Your task to perform on an android device: change text size in settings app Image 0: 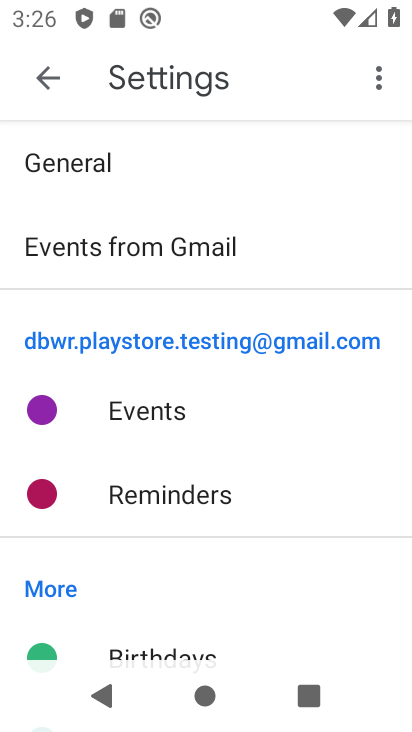
Step 0: press back button
Your task to perform on an android device: change text size in settings app Image 1: 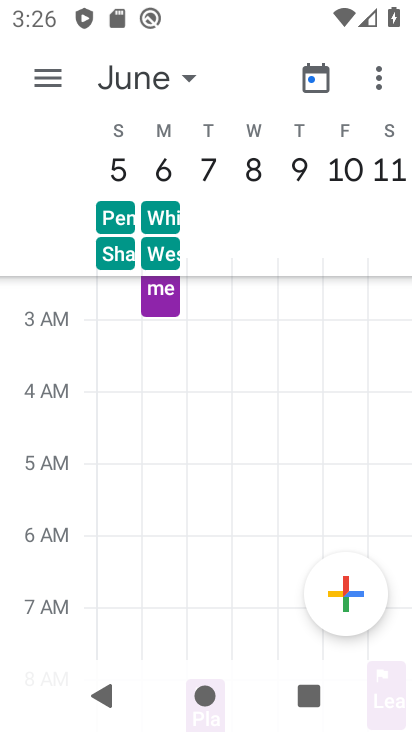
Step 1: press back button
Your task to perform on an android device: change text size in settings app Image 2: 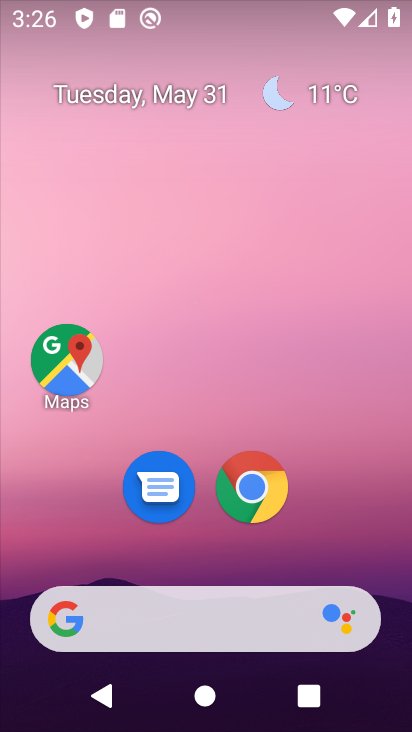
Step 2: drag from (294, 542) to (258, 49)
Your task to perform on an android device: change text size in settings app Image 3: 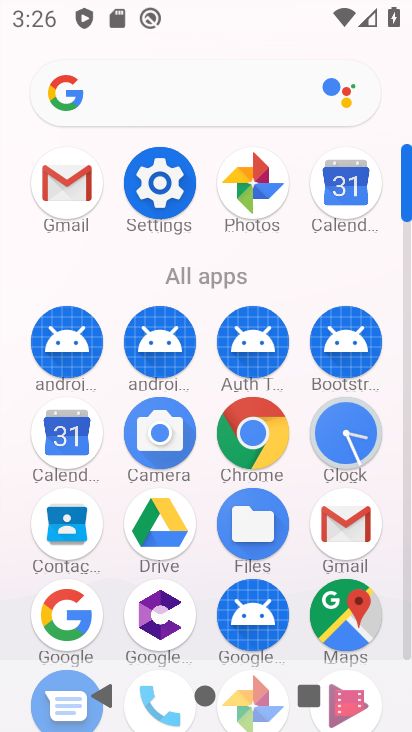
Step 3: click (160, 181)
Your task to perform on an android device: change text size in settings app Image 4: 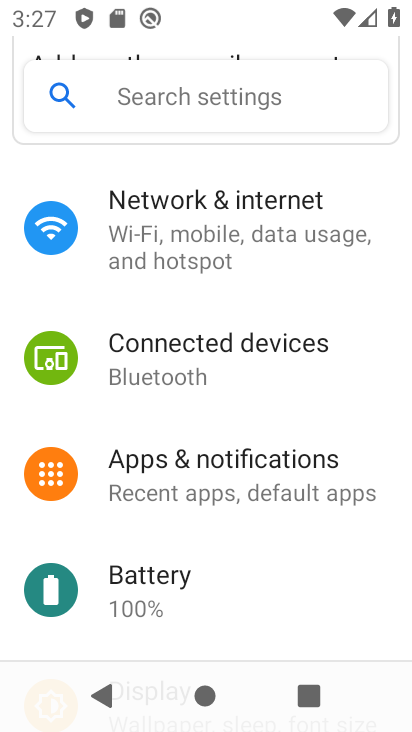
Step 4: drag from (201, 499) to (222, 420)
Your task to perform on an android device: change text size in settings app Image 5: 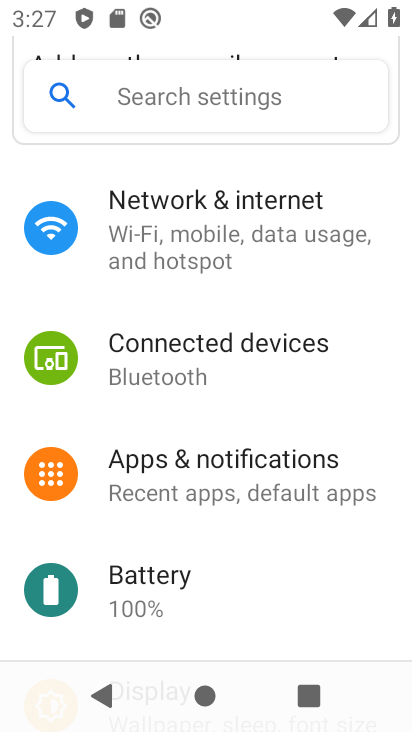
Step 5: drag from (238, 568) to (270, 417)
Your task to perform on an android device: change text size in settings app Image 6: 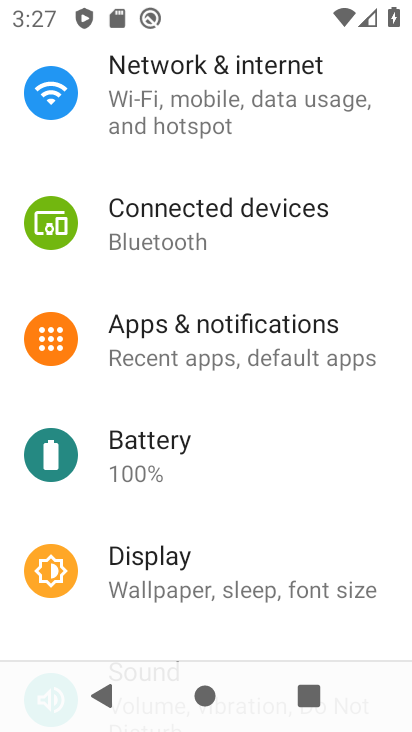
Step 6: drag from (172, 521) to (249, 396)
Your task to perform on an android device: change text size in settings app Image 7: 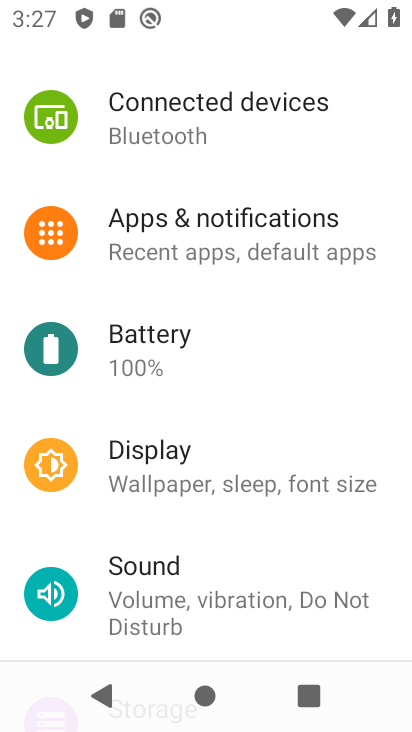
Step 7: drag from (160, 516) to (273, 390)
Your task to perform on an android device: change text size in settings app Image 8: 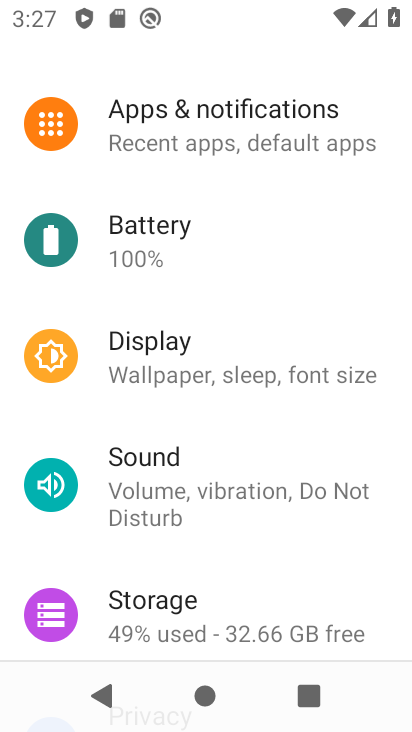
Step 8: drag from (129, 544) to (242, 422)
Your task to perform on an android device: change text size in settings app Image 9: 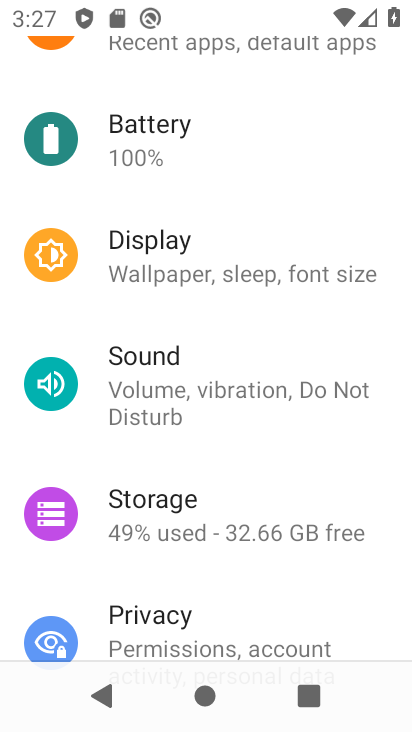
Step 9: drag from (132, 469) to (238, 336)
Your task to perform on an android device: change text size in settings app Image 10: 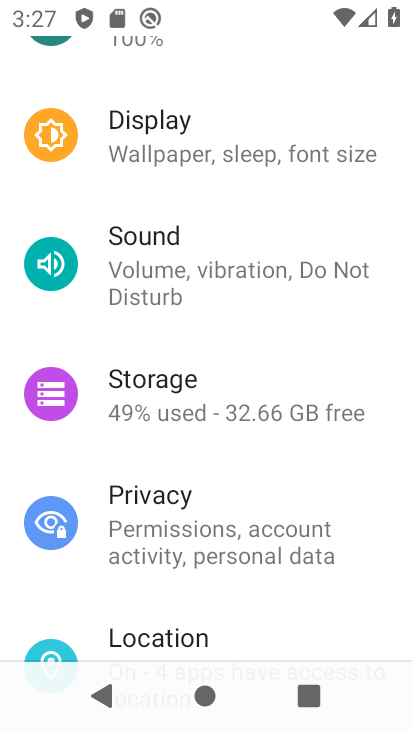
Step 10: drag from (77, 461) to (191, 323)
Your task to perform on an android device: change text size in settings app Image 11: 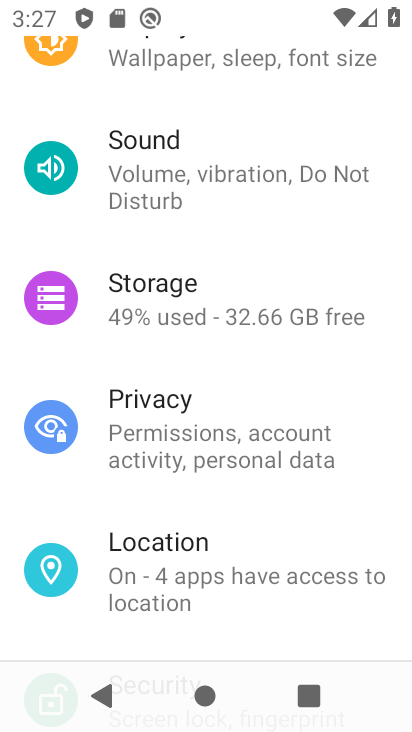
Step 11: drag from (108, 485) to (213, 335)
Your task to perform on an android device: change text size in settings app Image 12: 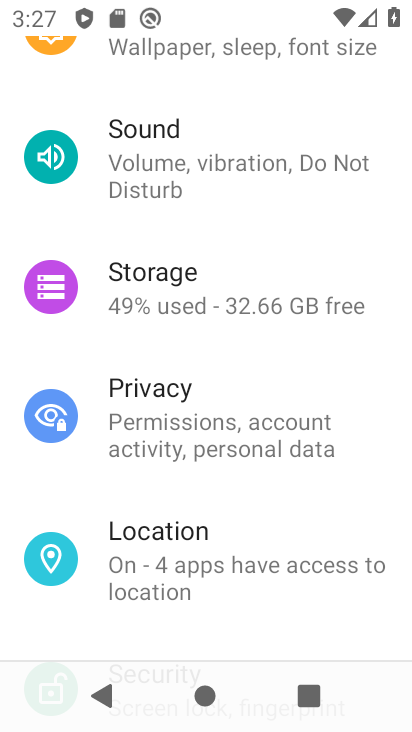
Step 12: drag from (68, 490) to (210, 340)
Your task to perform on an android device: change text size in settings app Image 13: 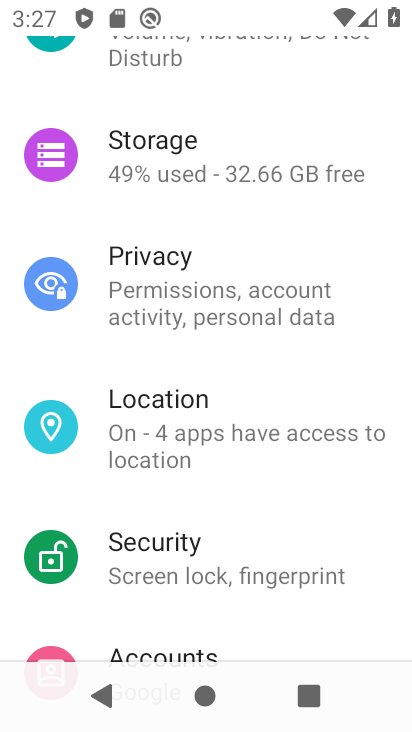
Step 13: drag from (87, 497) to (227, 327)
Your task to perform on an android device: change text size in settings app Image 14: 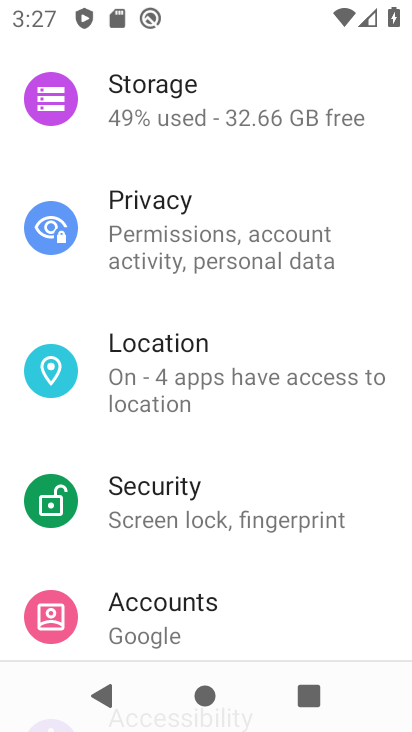
Step 14: drag from (48, 561) to (242, 0)
Your task to perform on an android device: change text size in settings app Image 15: 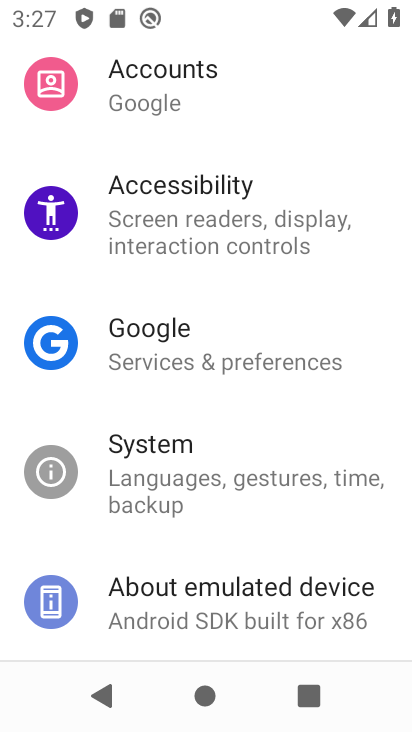
Step 15: click (185, 248)
Your task to perform on an android device: change text size in settings app Image 16: 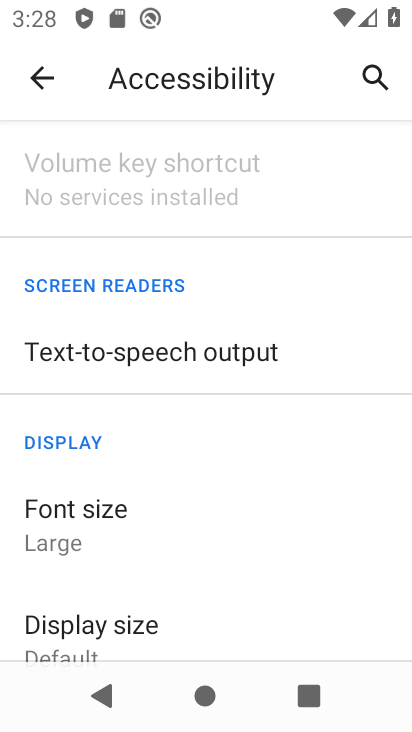
Step 16: click (73, 496)
Your task to perform on an android device: change text size in settings app Image 17: 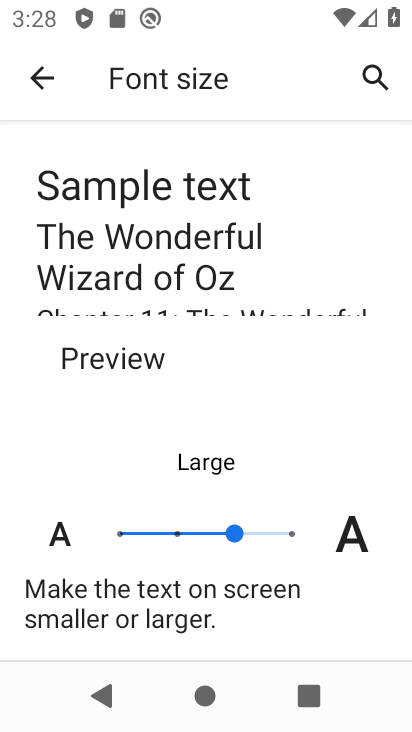
Step 17: click (169, 528)
Your task to perform on an android device: change text size in settings app Image 18: 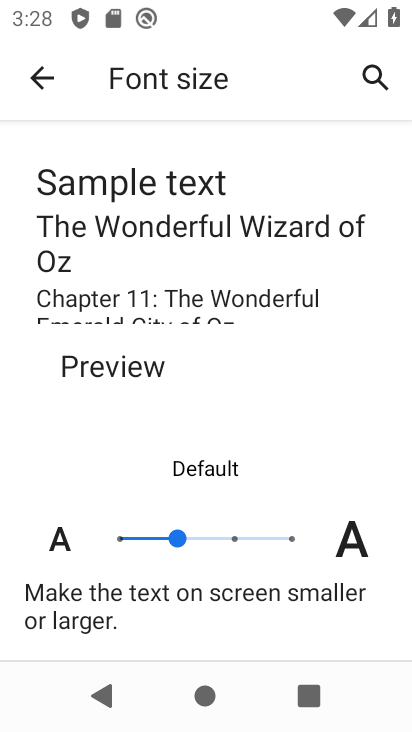
Step 18: task complete